Your task to perform on an android device: Open Google Maps and go to "Timeline" Image 0: 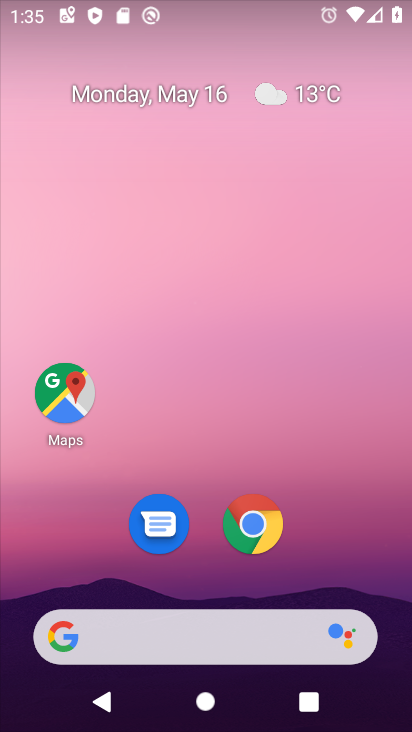
Step 0: click (67, 393)
Your task to perform on an android device: Open Google Maps and go to "Timeline" Image 1: 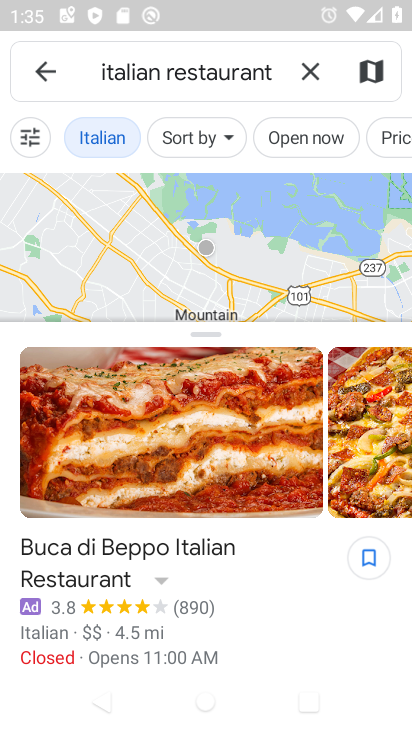
Step 1: click (41, 64)
Your task to perform on an android device: Open Google Maps and go to "Timeline" Image 2: 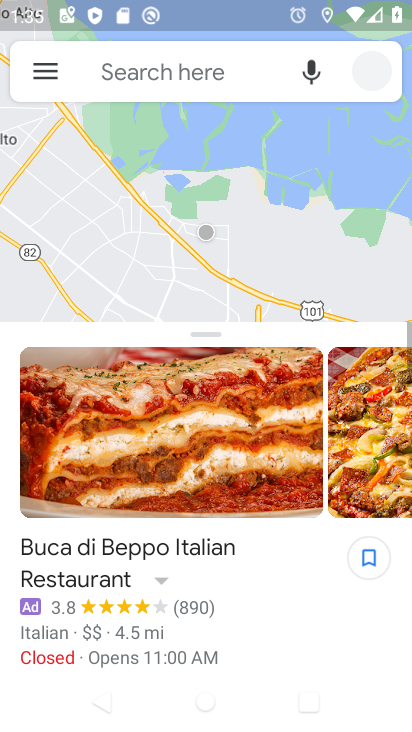
Step 2: click (41, 64)
Your task to perform on an android device: Open Google Maps and go to "Timeline" Image 3: 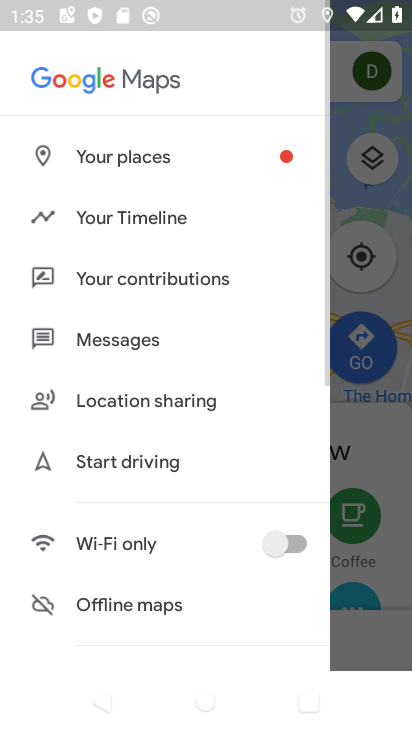
Step 3: click (41, 64)
Your task to perform on an android device: Open Google Maps and go to "Timeline" Image 4: 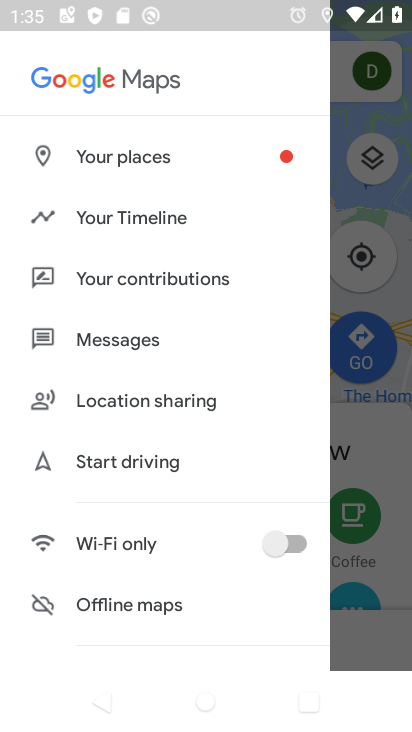
Step 4: click (108, 206)
Your task to perform on an android device: Open Google Maps and go to "Timeline" Image 5: 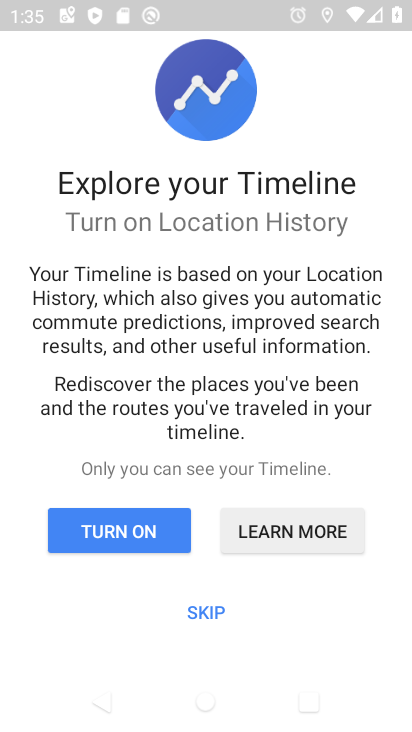
Step 5: click (176, 522)
Your task to perform on an android device: Open Google Maps and go to "Timeline" Image 6: 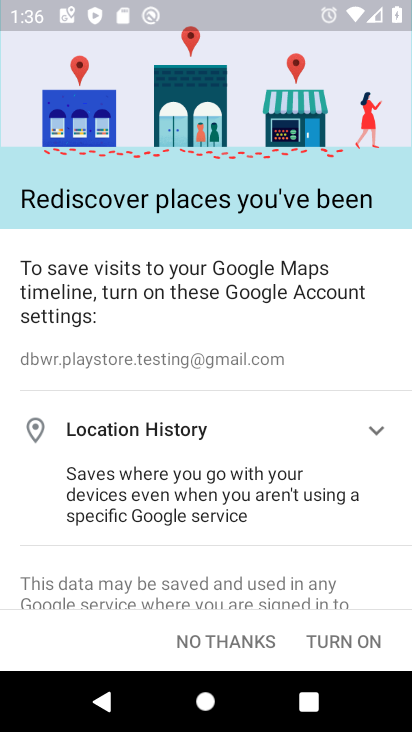
Step 6: click (343, 636)
Your task to perform on an android device: Open Google Maps and go to "Timeline" Image 7: 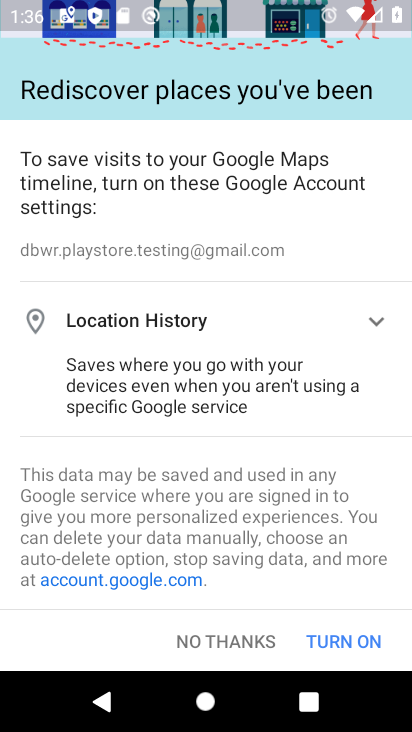
Step 7: click (343, 636)
Your task to perform on an android device: Open Google Maps and go to "Timeline" Image 8: 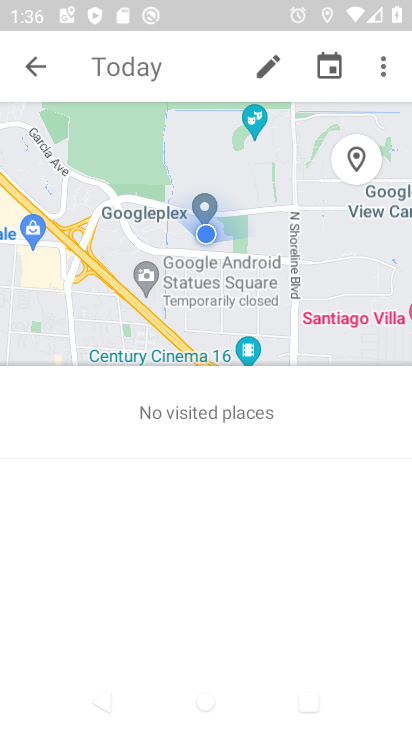
Step 8: task complete